Your task to perform on an android device: turn on bluetooth scan Image 0: 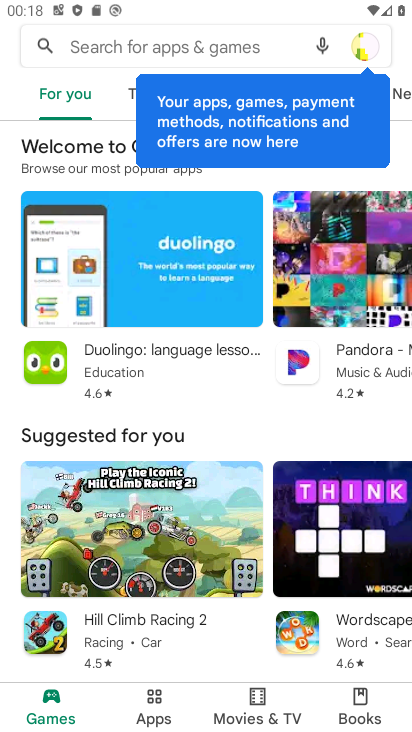
Step 0: press home button
Your task to perform on an android device: turn on bluetooth scan Image 1: 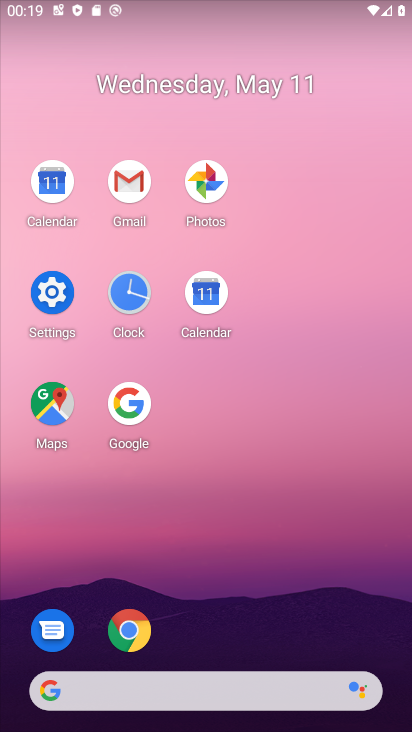
Step 1: click (56, 305)
Your task to perform on an android device: turn on bluetooth scan Image 2: 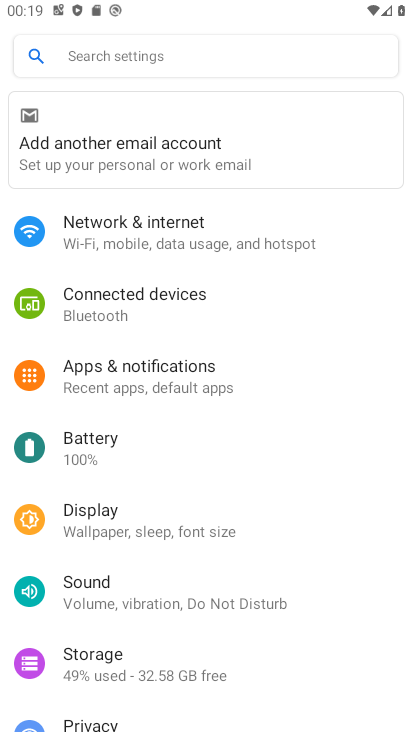
Step 2: drag from (248, 655) to (237, 323)
Your task to perform on an android device: turn on bluetooth scan Image 3: 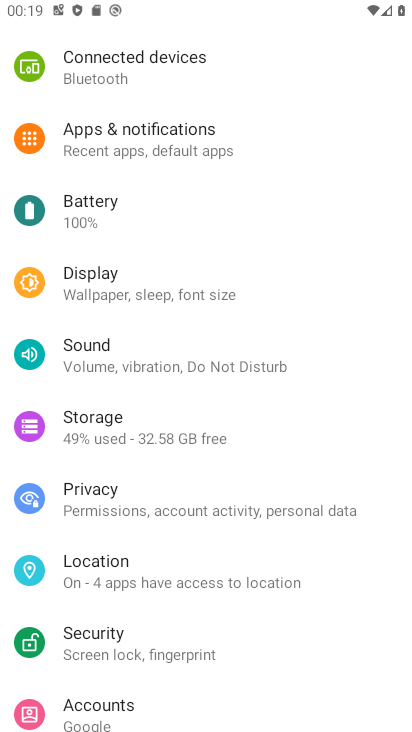
Step 3: click (191, 581)
Your task to perform on an android device: turn on bluetooth scan Image 4: 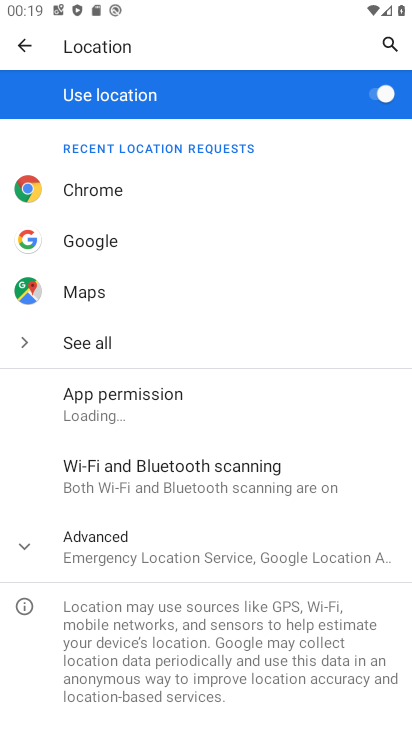
Step 4: click (196, 495)
Your task to perform on an android device: turn on bluetooth scan Image 5: 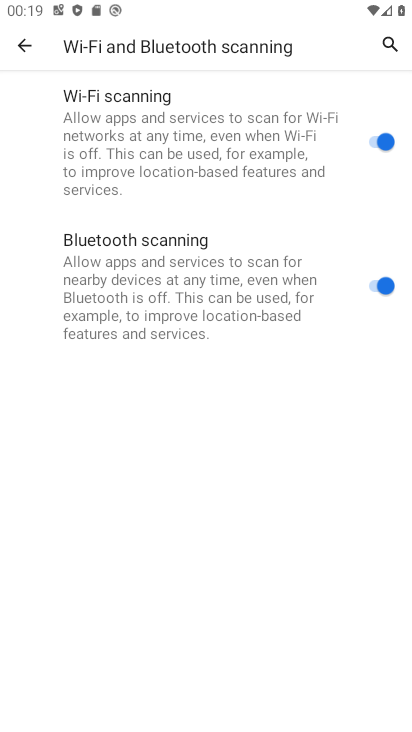
Step 5: task complete